Your task to perform on an android device: Go to sound settings Image 0: 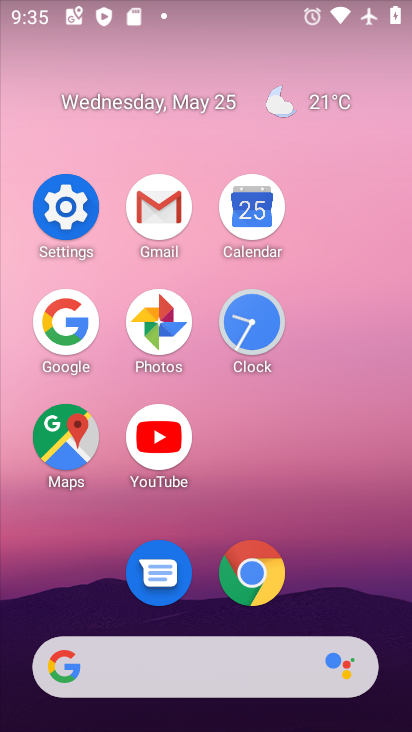
Step 0: click (65, 219)
Your task to perform on an android device: Go to sound settings Image 1: 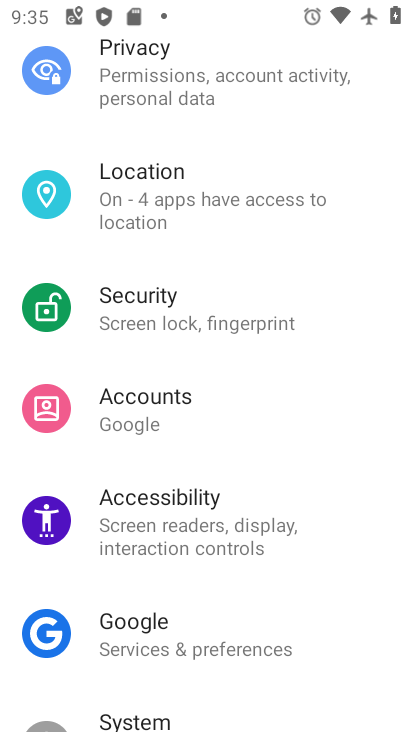
Step 1: drag from (239, 155) to (226, 560)
Your task to perform on an android device: Go to sound settings Image 2: 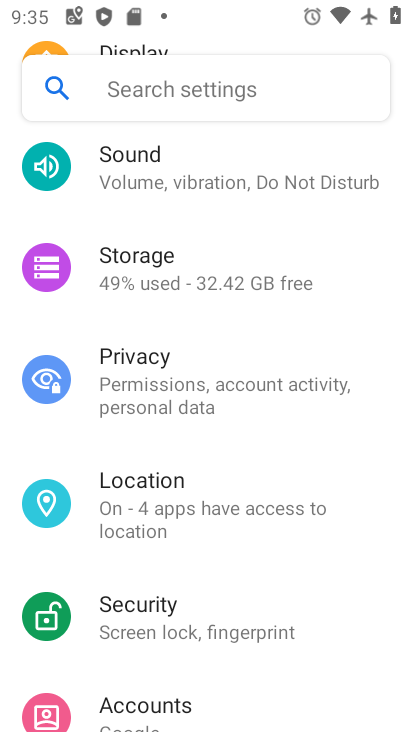
Step 2: click (248, 188)
Your task to perform on an android device: Go to sound settings Image 3: 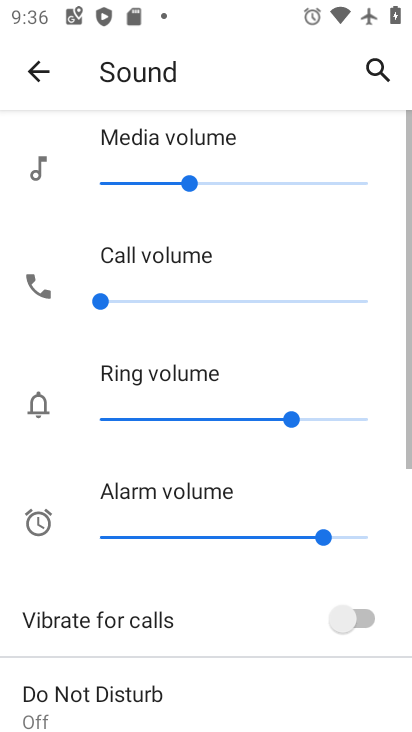
Step 3: task complete